Your task to perform on an android device: set the timer Image 0: 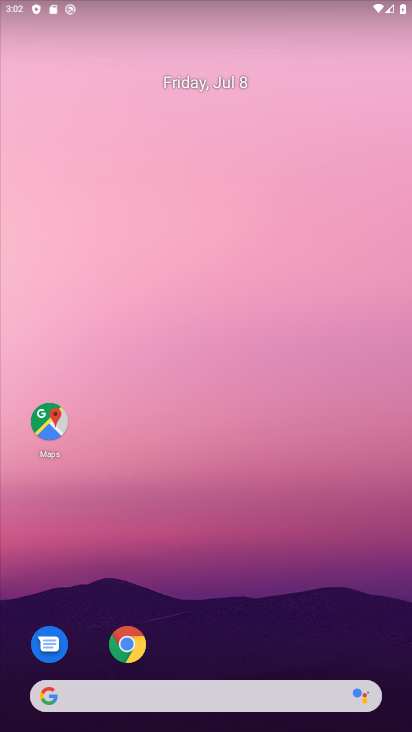
Step 0: drag from (305, 150) to (40, 725)
Your task to perform on an android device: set the timer Image 1: 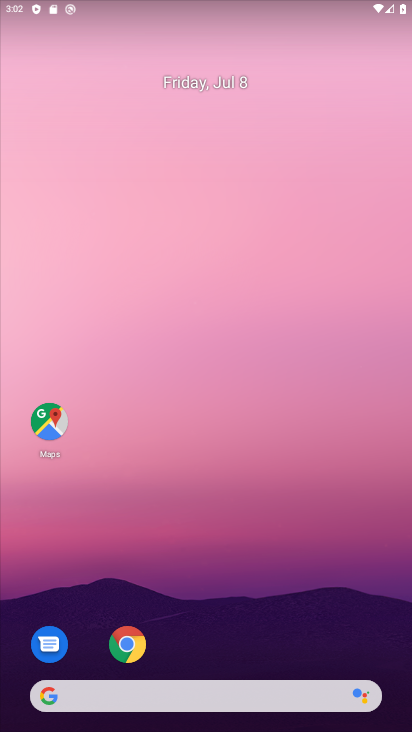
Step 1: drag from (37, 664) to (208, 91)
Your task to perform on an android device: set the timer Image 2: 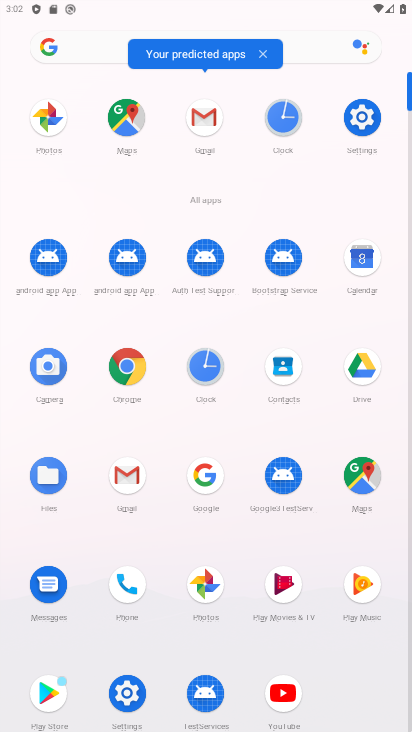
Step 2: click (209, 367)
Your task to perform on an android device: set the timer Image 3: 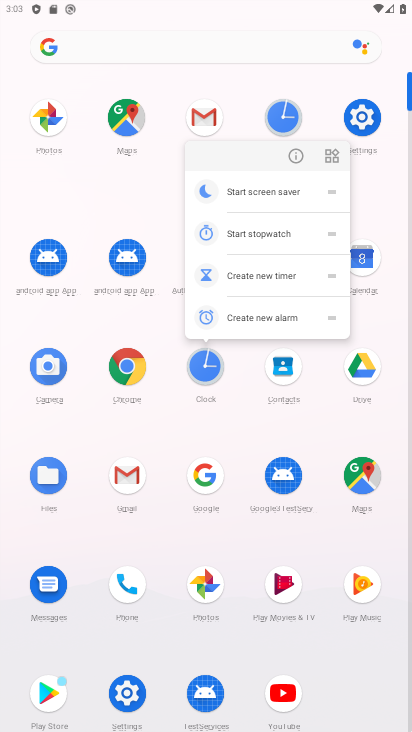
Step 3: click (202, 386)
Your task to perform on an android device: set the timer Image 4: 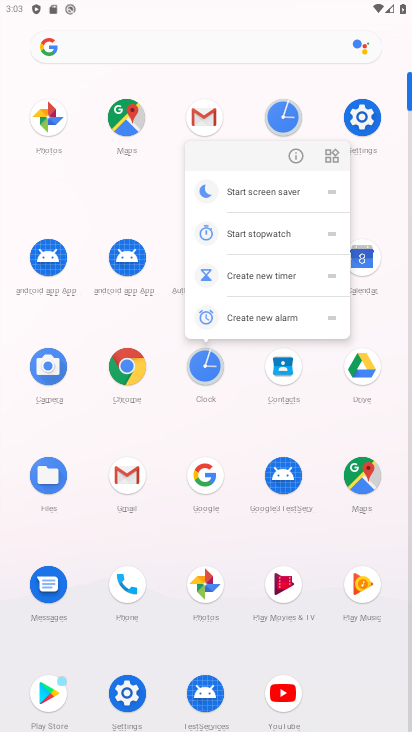
Step 4: click (199, 392)
Your task to perform on an android device: set the timer Image 5: 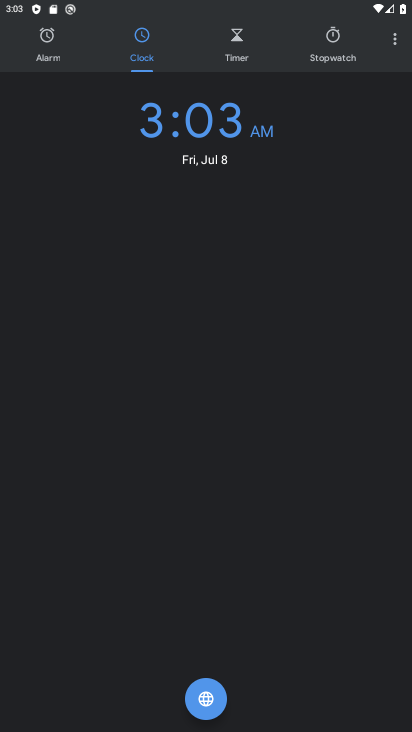
Step 5: click (235, 39)
Your task to perform on an android device: set the timer Image 6: 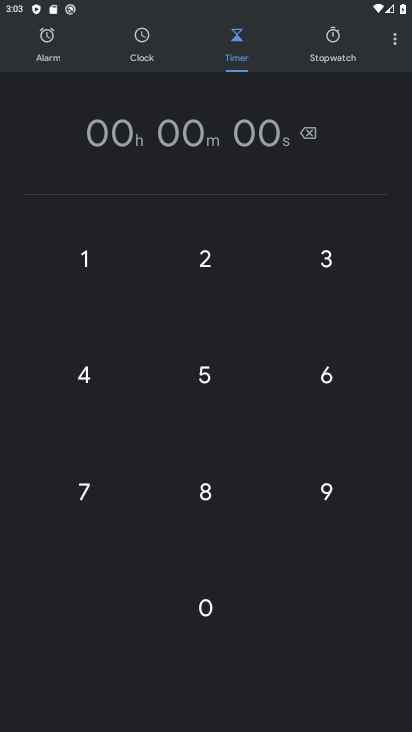
Step 6: click (198, 248)
Your task to perform on an android device: set the timer Image 7: 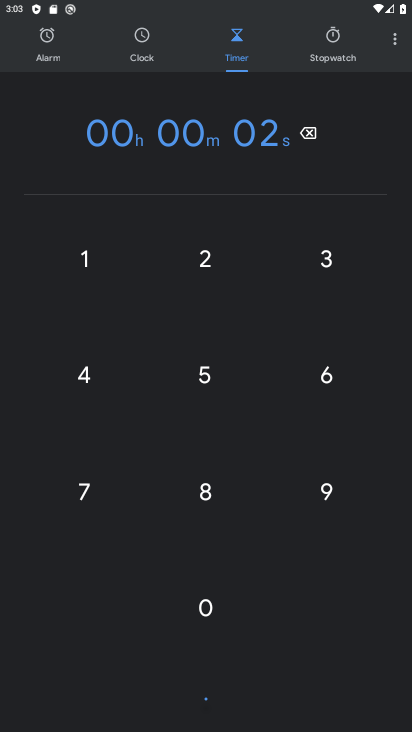
Step 7: click (202, 343)
Your task to perform on an android device: set the timer Image 8: 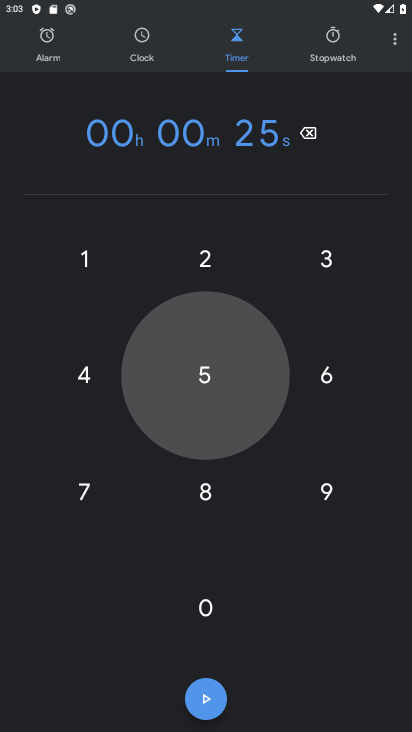
Step 8: click (199, 393)
Your task to perform on an android device: set the timer Image 9: 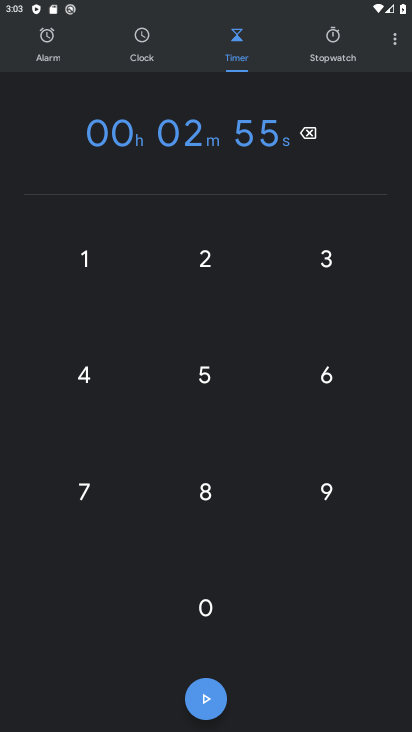
Step 9: click (100, 285)
Your task to perform on an android device: set the timer Image 10: 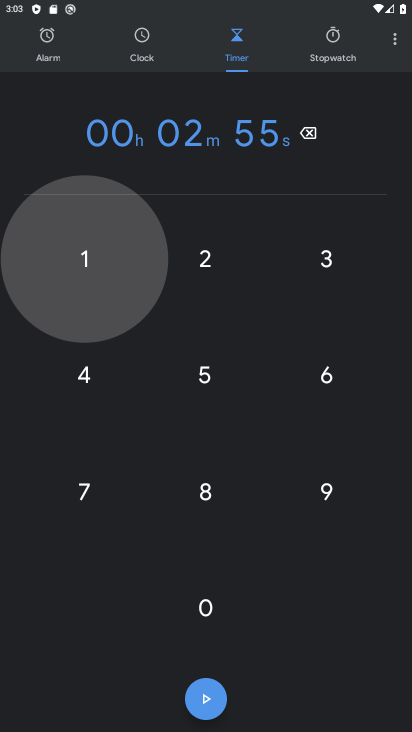
Step 10: drag from (120, 140) to (106, 333)
Your task to perform on an android device: set the timer Image 11: 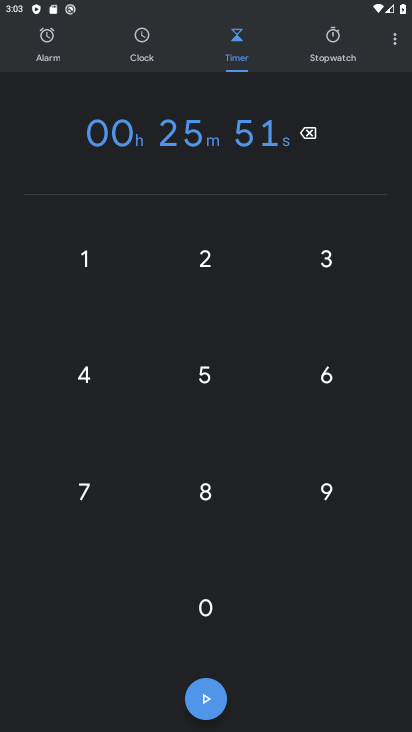
Step 11: click (110, 134)
Your task to perform on an android device: set the timer Image 12: 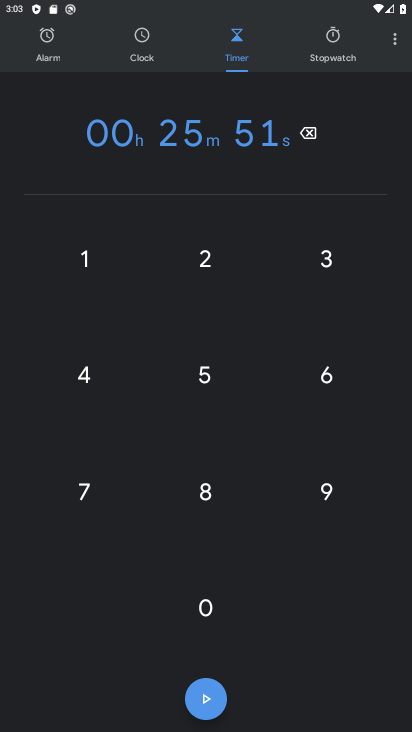
Step 12: click (42, 290)
Your task to perform on an android device: set the timer Image 13: 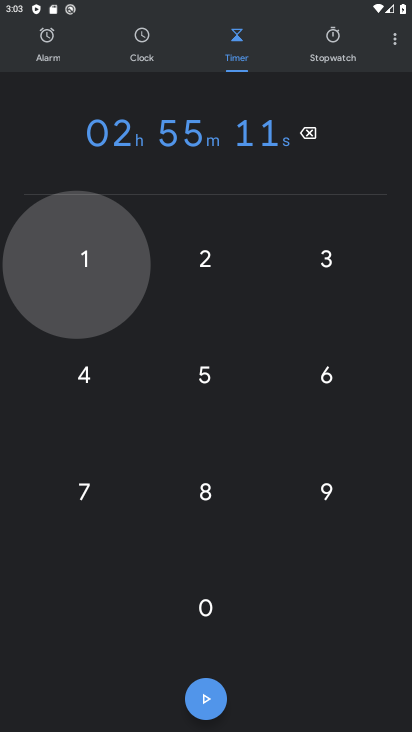
Step 13: click (94, 261)
Your task to perform on an android device: set the timer Image 14: 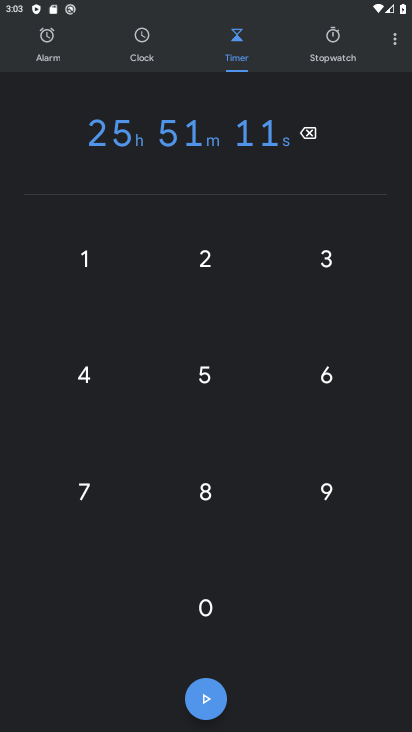
Step 14: task complete